Your task to perform on an android device: change notification settings in the gmail app Image 0: 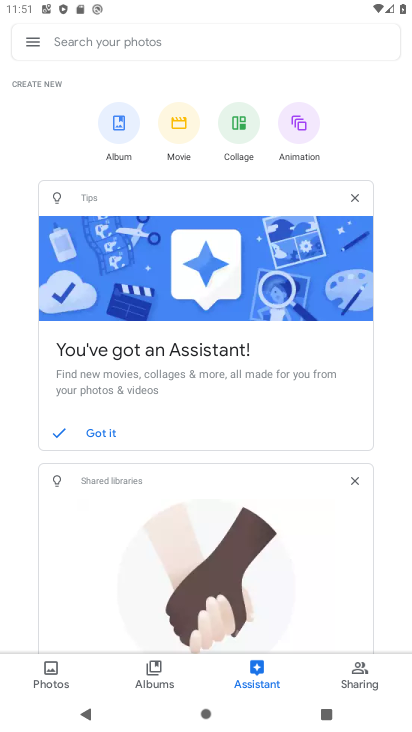
Step 0: press home button
Your task to perform on an android device: change notification settings in the gmail app Image 1: 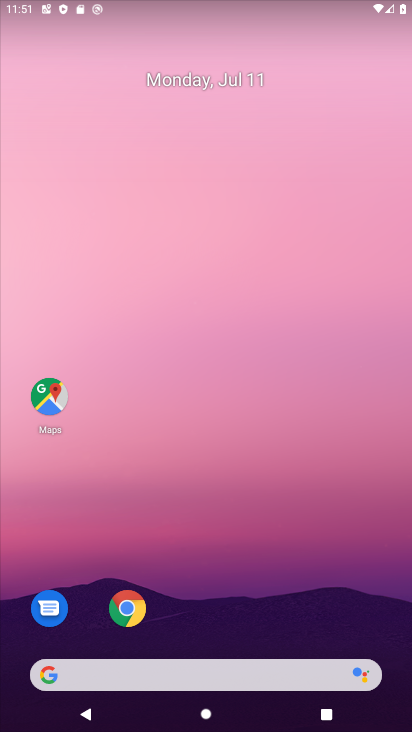
Step 1: drag from (205, 565) to (201, 23)
Your task to perform on an android device: change notification settings in the gmail app Image 2: 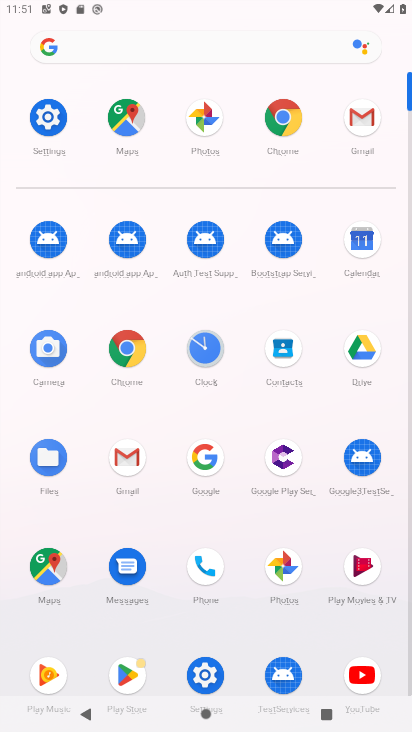
Step 2: click (34, 117)
Your task to perform on an android device: change notification settings in the gmail app Image 3: 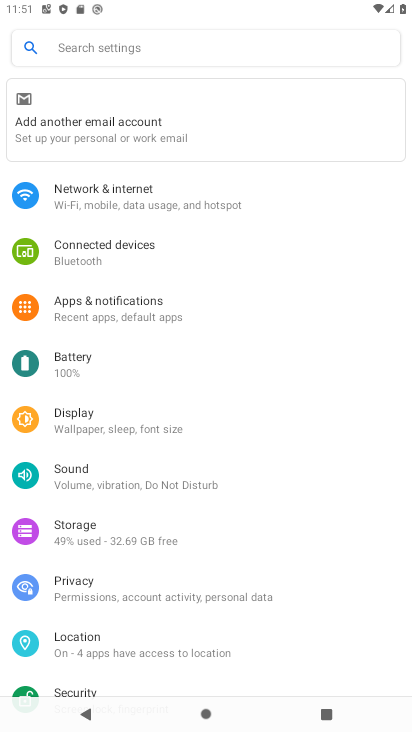
Step 3: click (169, 318)
Your task to perform on an android device: change notification settings in the gmail app Image 4: 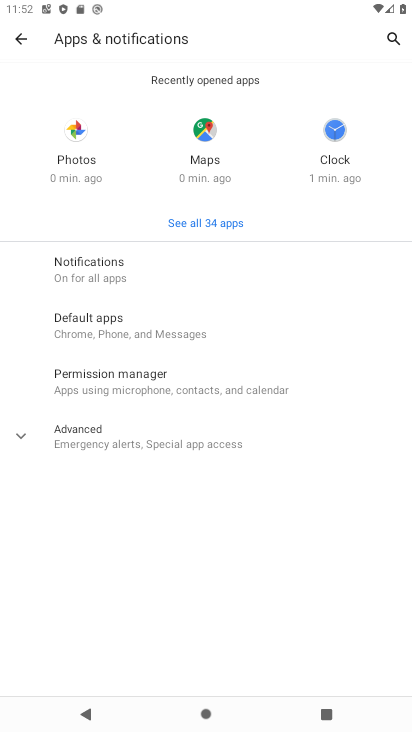
Step 4: click (200, 215)
Your task to perform on an android device: change notification settings in the gmail app Image 5: 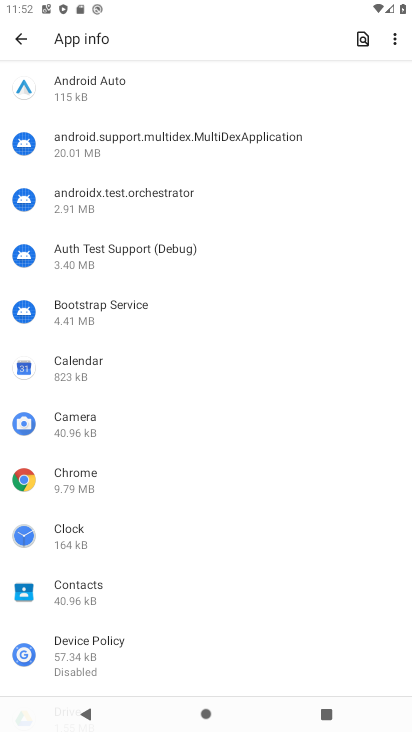
Step 5: drag from (146, 508) to (165, 10)
Your task to perform on an android device: change notification settings in the gmail app Image 6: 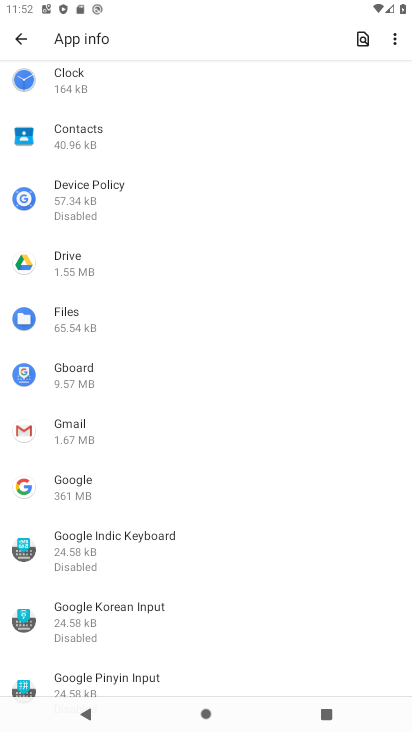
Step 6: click (111, 443)
Your task to perform on an android device: change notification settings in the gmail app Image 7: 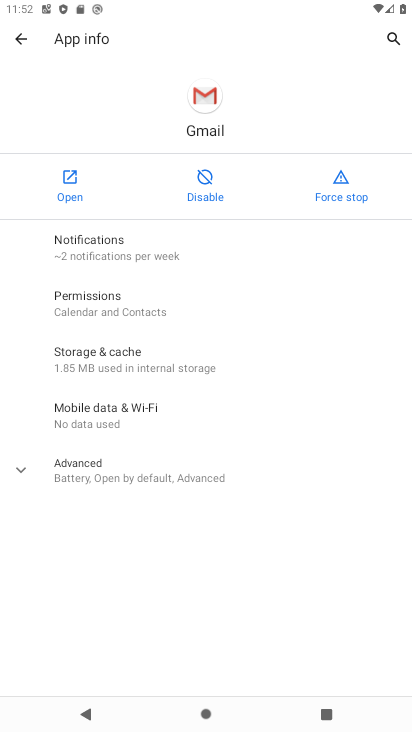
Step 7: click (157, 269)
Your task to perform on an android device: change notification settings in the gmail app Image 8: 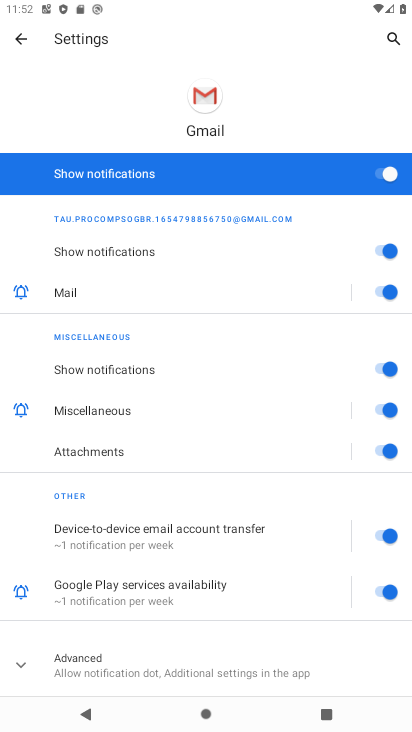
Step 8: click (381, 528)
Your task to perform on an android device: change notification settings in the gmail app Image 9: 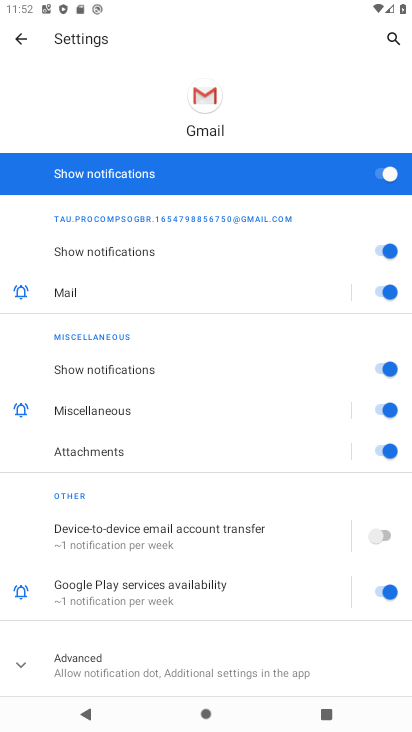
Step 9: click (388, 414)
Your task to perform on an android device: change notification settings in the gmail app Image 10: 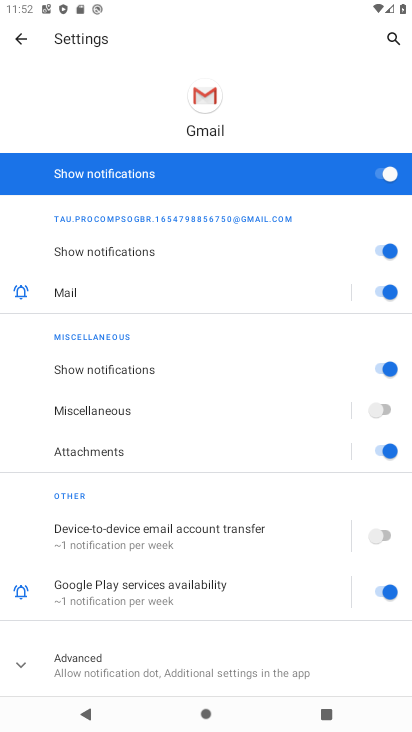
Step 10: click (392, 363)
Your task to perform on an android device: change notification settings in the gmail app Image 11: 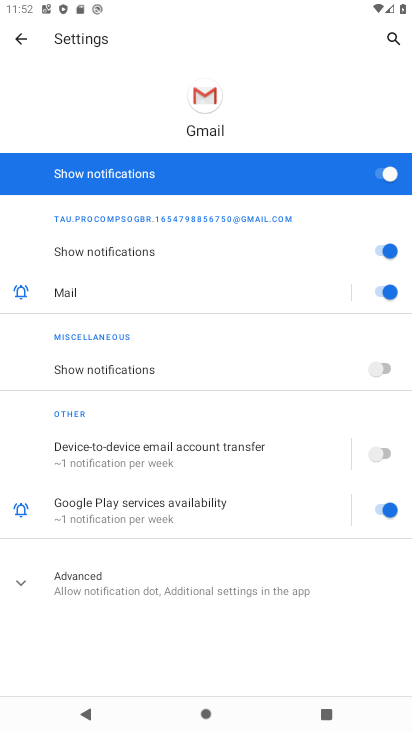
Step 11: task complete